Your task to perform on an android device: open chrome and create a bookmark for the current page Image 0: 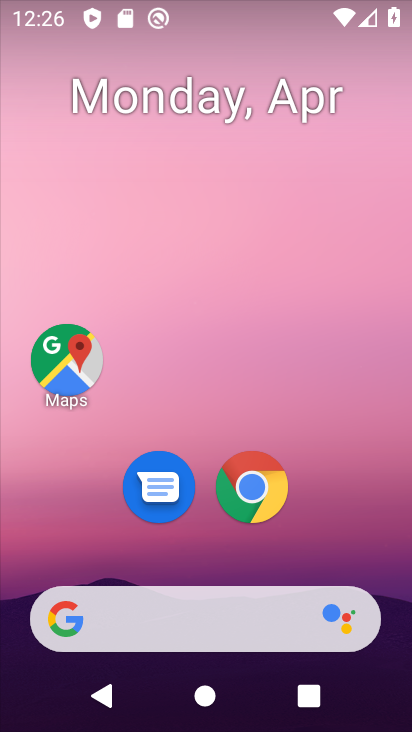
Step 0: drag from (397, 623) to (342, 73)
Your task to perform on an android device: open chrome and create a bookmark for the current page Image 1: 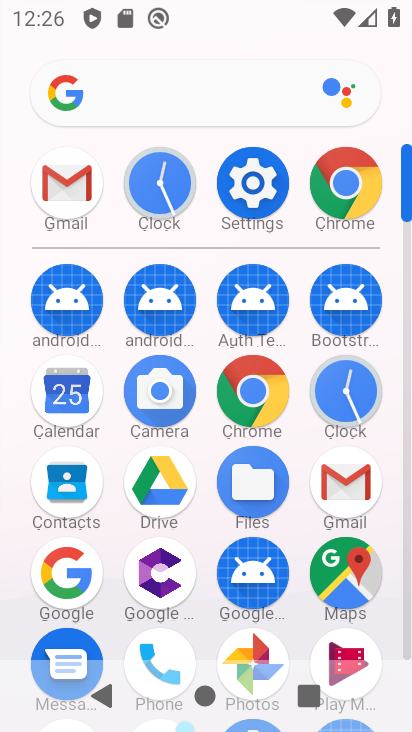
Step 1: click (338, 178)
Your task to perform on an android device: open chrome and create a bookmark for the current page Image 2: 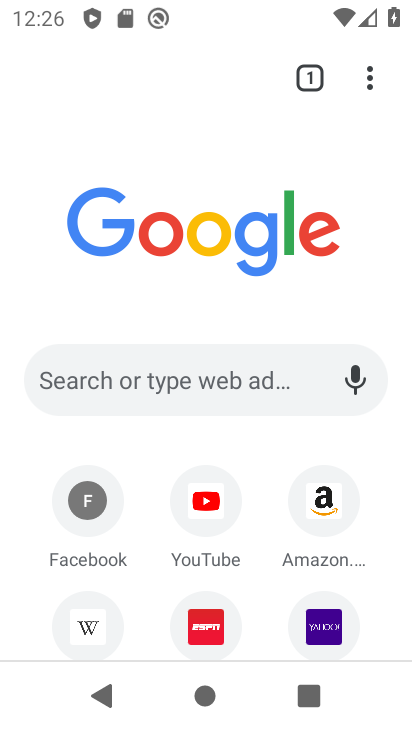
Step 2: click (368, 69)
Your task to perform on an android device: open chrome and create a bookmark for the current page Image 3: 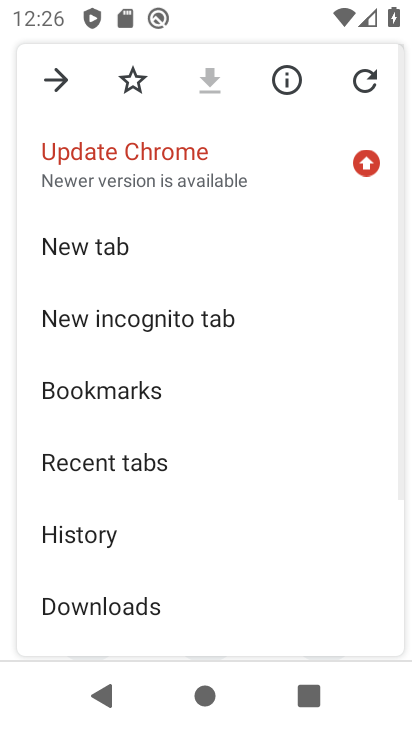
Step 3: click (127, 77)
Your task to perform on an android device: open chrome and create a bookmark for the current page Image 4: 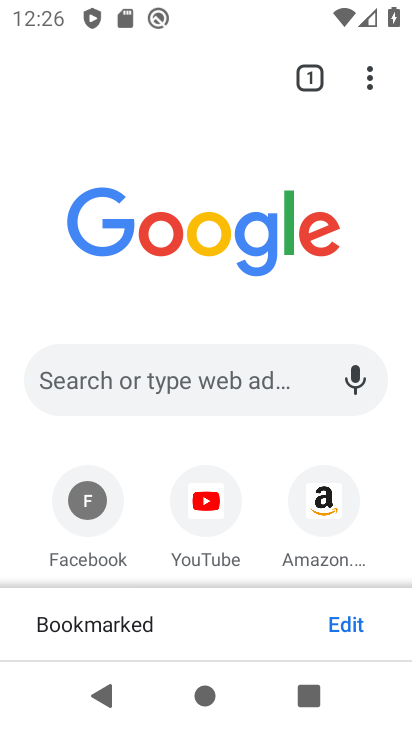
Step 4: task complete